Your task to perform on an android device: toggle show notifications on the lock screen Image 0: 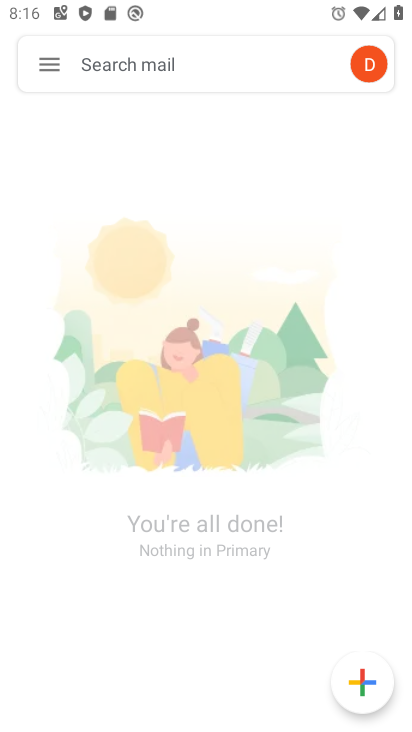
Step 0: press back button
Your task to perform on an android device: toggle show notifications on the lock screen Image 1: 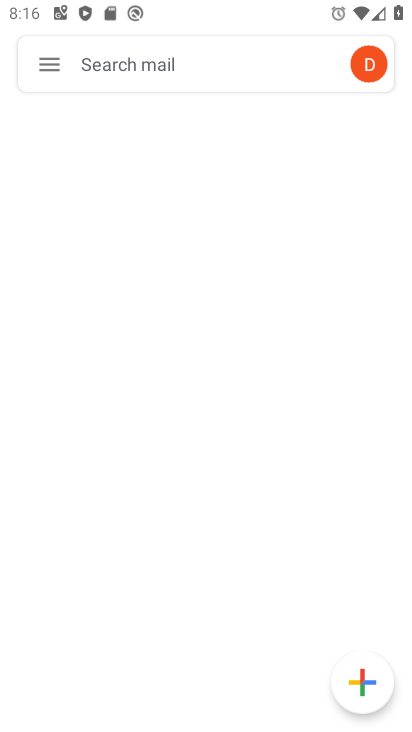
Step 1: press home button
Your task to perform on an android device: toggle show notifications on the lock screen Image 2: 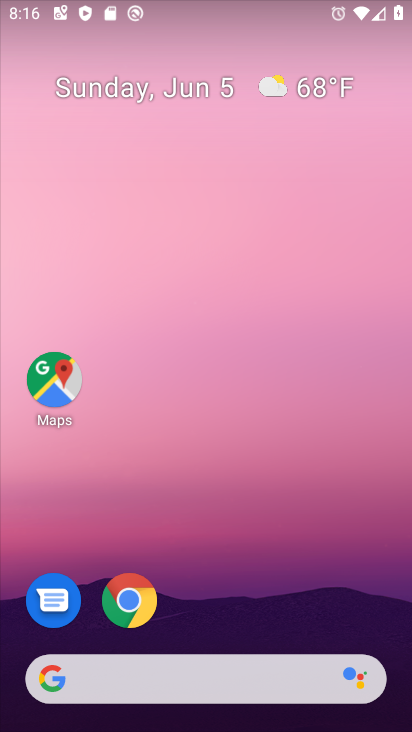
Step 2: drag from (395, 665) to (213, 37)
Your task to perform on an android device: toggle show notifications on the lock screen Image 3: 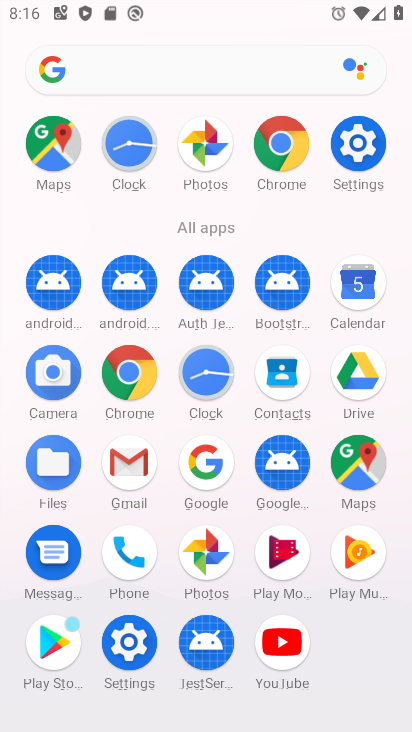
Step 3: click (360, 153)
Your task to perform on an android device: toggle show notifications on the lock screen Image 4: 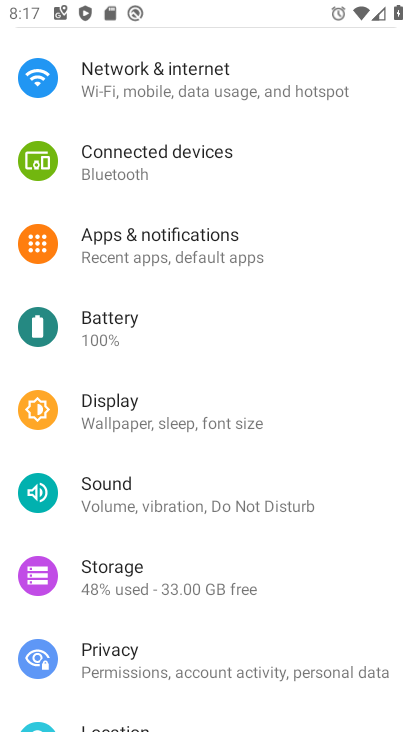
Step 4: click (138, 254)
Your task to perform on an android device: toggle show notifications on the lock screen Image 5: 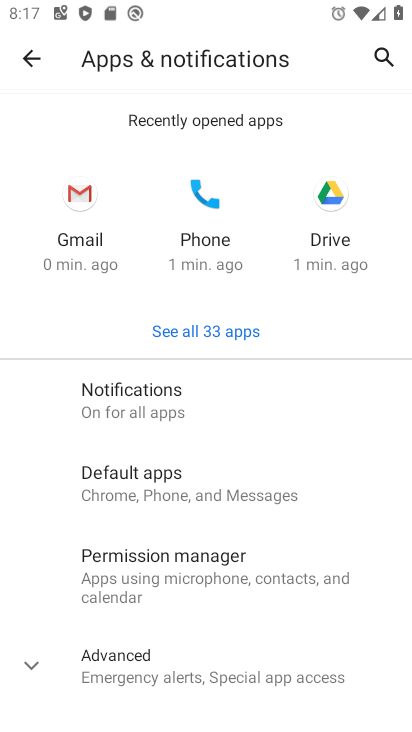
Step 5: click (244, 391)
Your task to perform on an android device: toggle show notifications on the lock screen Image 6: 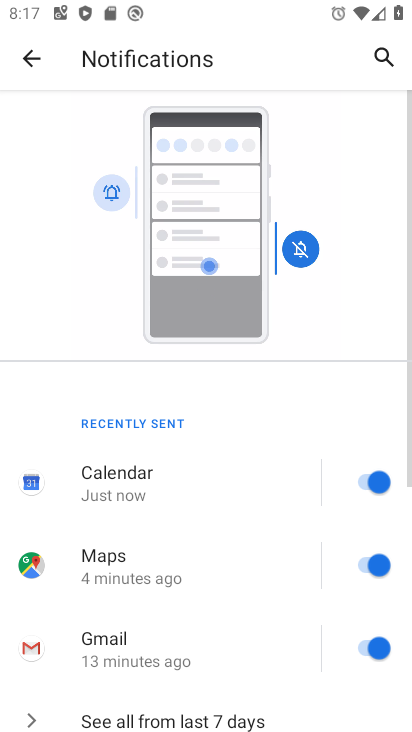
Step 6: drag from (232, 689) to (172, 34)
Your task to perform on an android device: toggle show notifications on the lock screen Image 7: 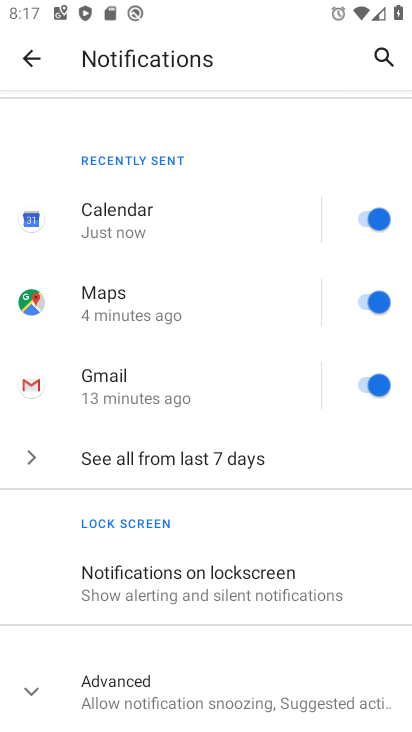
Step 7: click (210, 576)
Your task to perform on an android device: toggle show notifications on the lock screen Image 8: 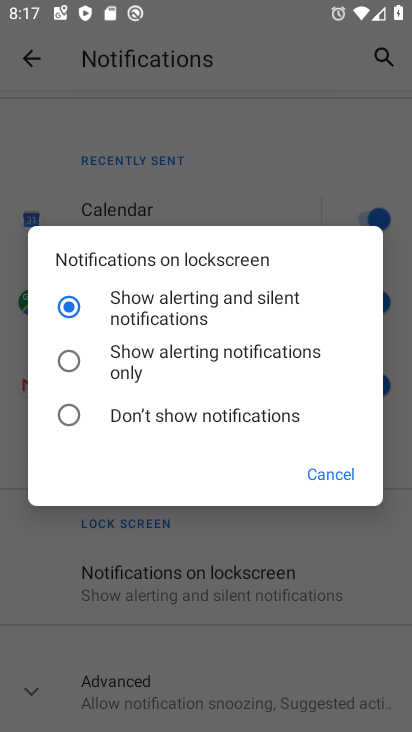
Step 8: click (67, 414)
Your task to perform on an android device: toggle show notifications on the lock screen Image 9: 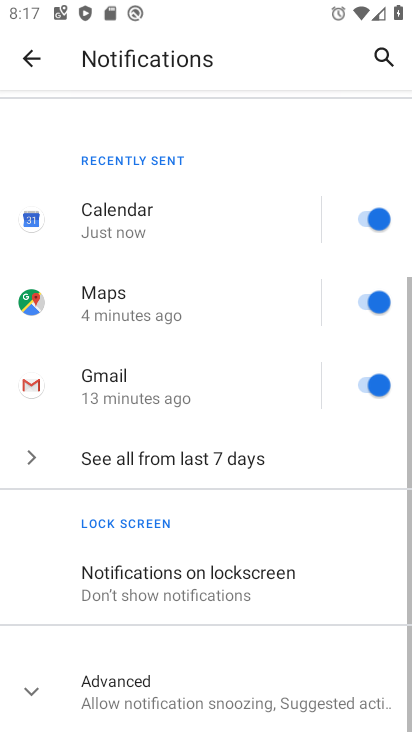
Step 9: task complete